Your task to perform on an android device: Open ESPN.com Image 0: 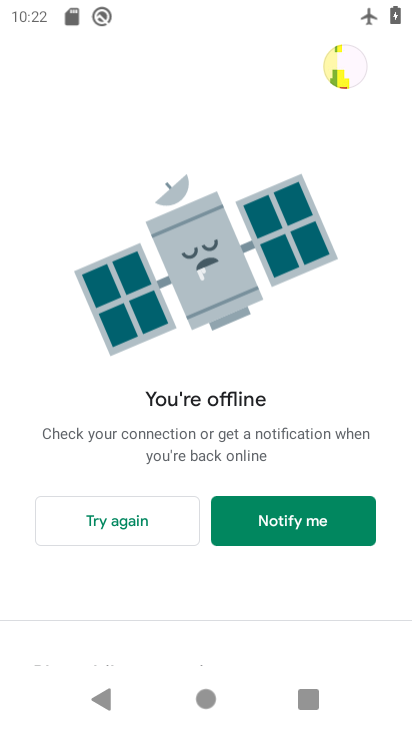
Step 0: press home button
Your task to perform on an android device: Open ESPN.com Image 1: 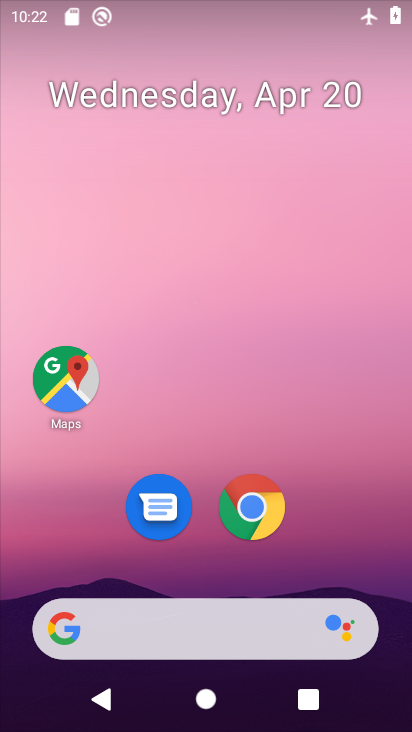
Step 1: click (253, 506)
Your task to perform on an android device: Open ESPN.com Image 2: 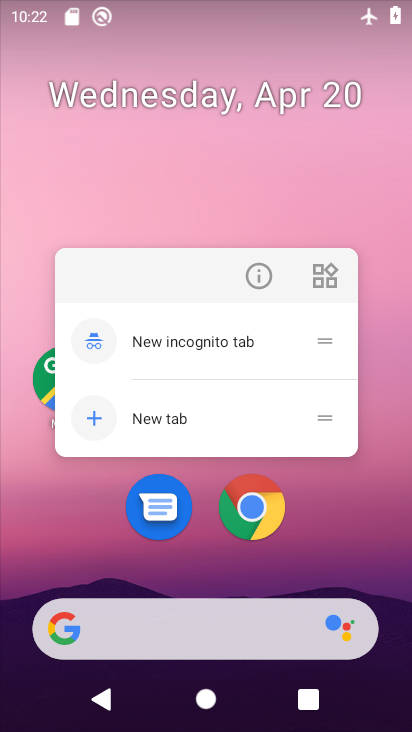
Step 2: click (272, 276)
Your task to perform on an android device: Open ESPN.com Image 3: 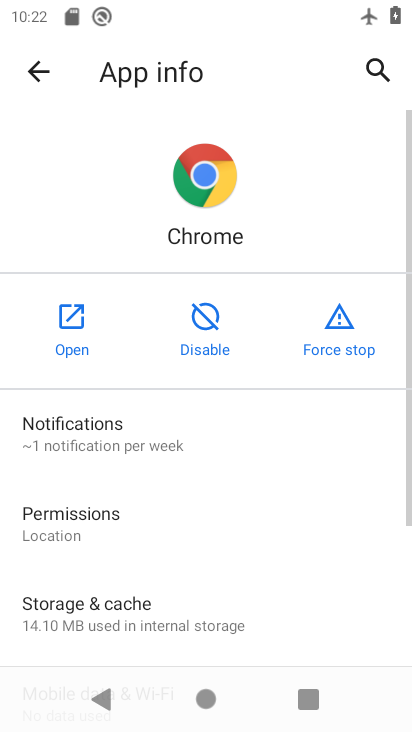
Step 3: click (65, 317)
Your task to perform on an android device: Open ESPN.com Image 4: 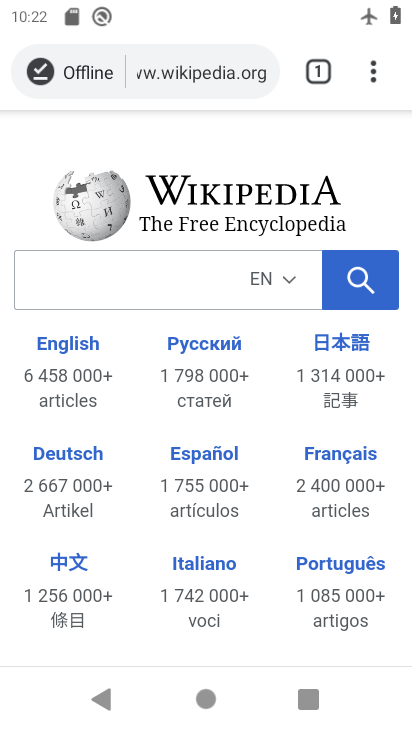
Step 4: click (162, 76)
Your task to perform on an android device: Open ESPN.com Image 5: 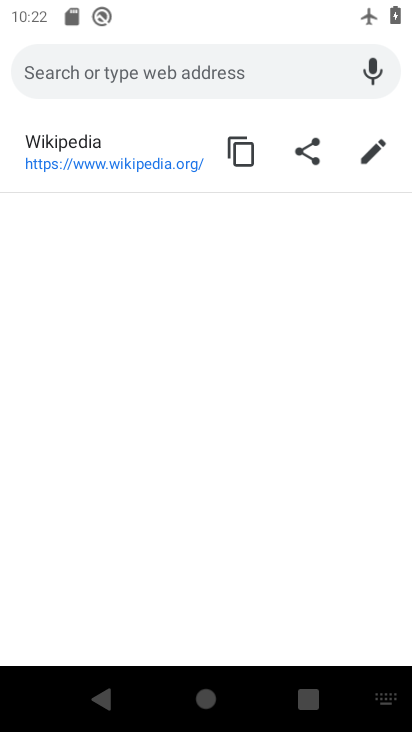
Step 5: type "ESPN.com"
Your task to perform on an android device: Open ESPN.com Image 6: 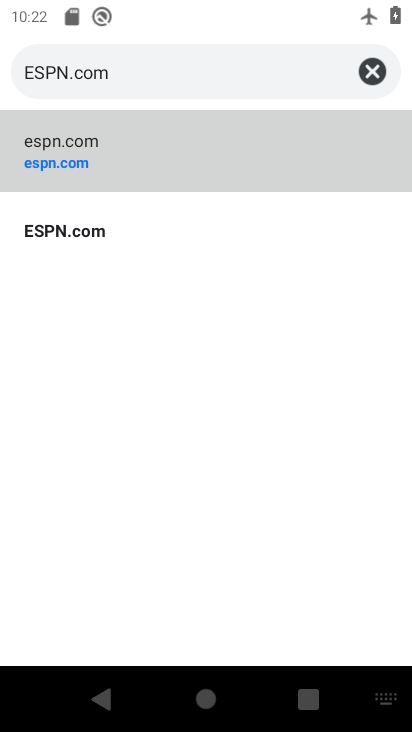
Step 6: click (113, 154)
Your task to perform on an android device: Open ESPN.com Image 7: 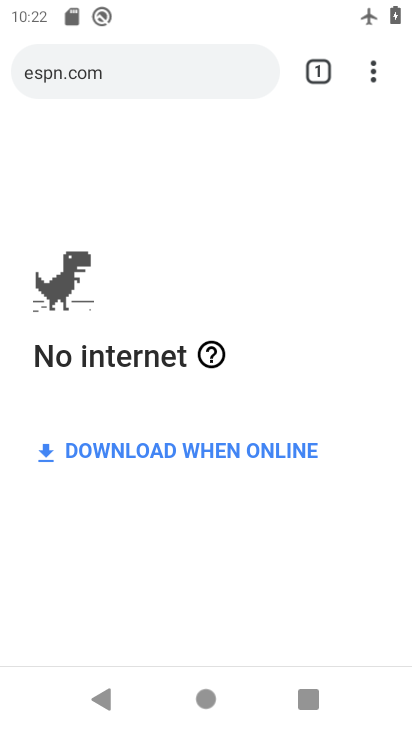
Step 7: click (234, 556)
Your task to perform on an android device: Open ESPN.com Image 8: 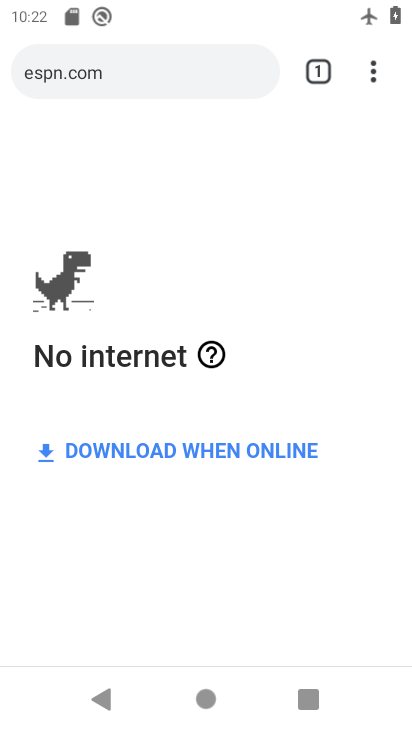
Step 8: task complete